Your task to perform on an android device: find which apps use the phone's location Image 0: 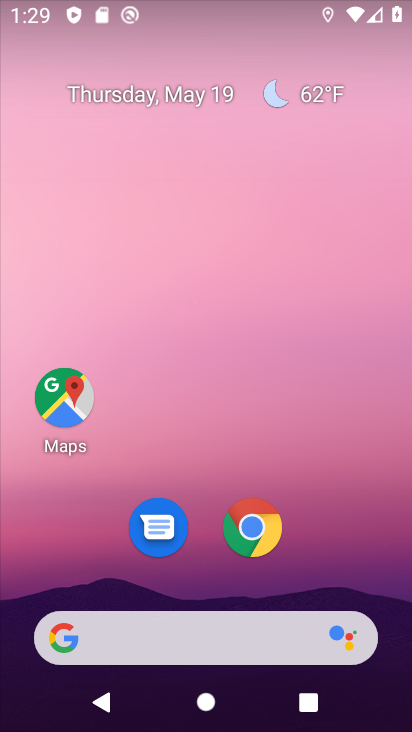
Step 0: drag from (335, 188) to (335, 131)
Your task to perform on an android device: find which apps use the phone's location Image 1: 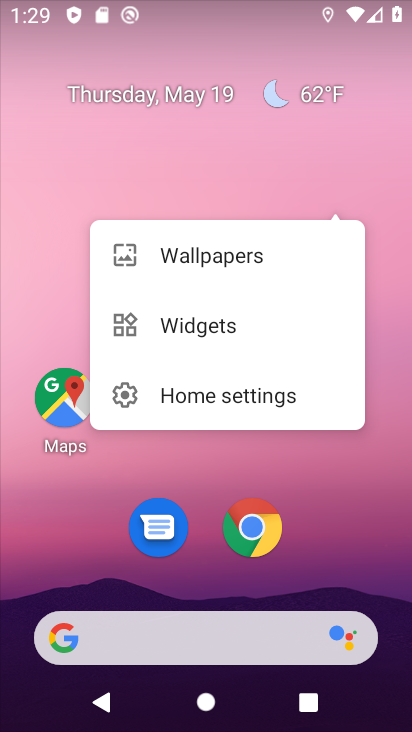
Step 1: drag from (354, 504) to (370, 143)
Your task to perform on an android device: find which apps use the phone's location Image 2: 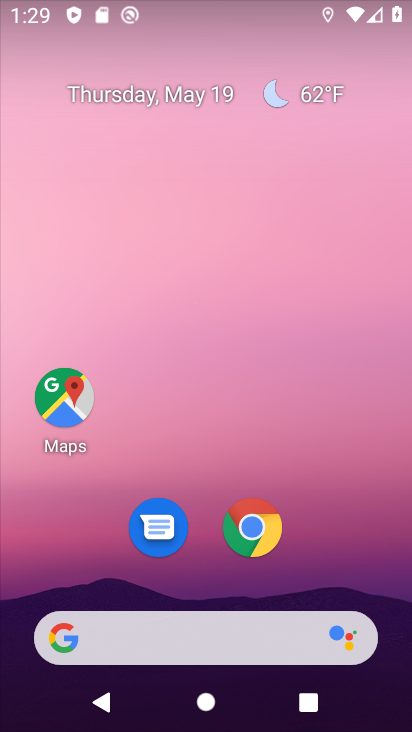
Step 2: drag from (367, 428) to (396, 112)
Your task to perform on an android device: find which apps use the phone's location Image 3: 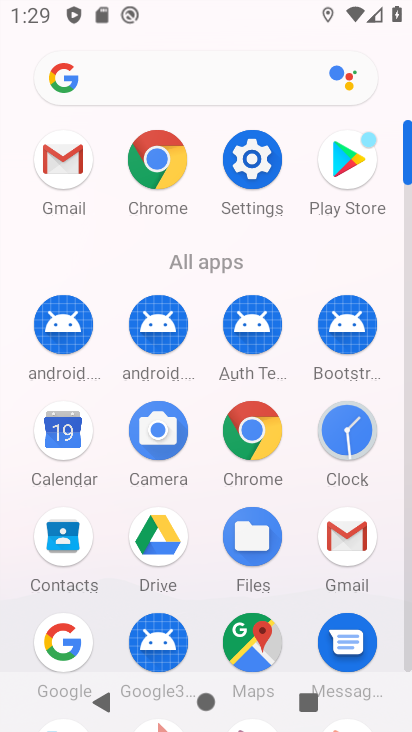
Step 3: drag from (296, 593) to (308, 314)
Your task to perform on an android device: find which apps use the phone's location Image 4: 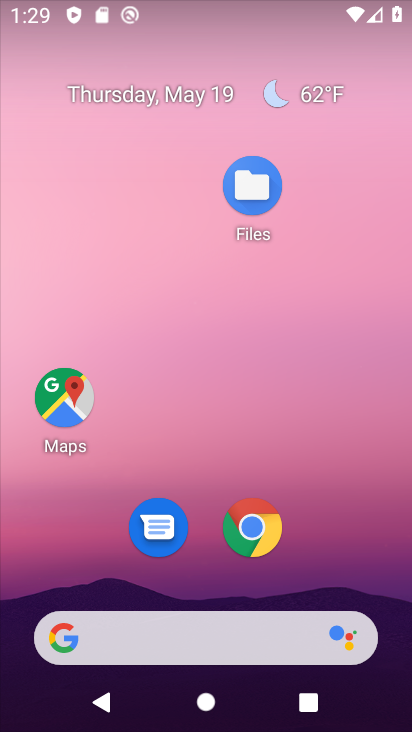
Step 4: drag from (296, 553) to (311, 168)
Your task to perform on an android device: find which apps use the phone's location Image 5: 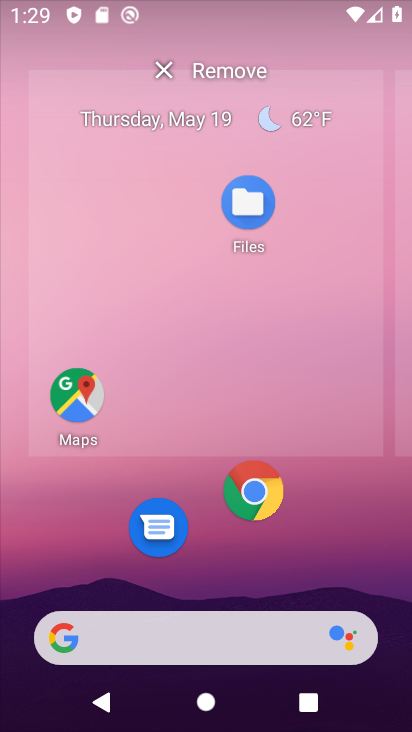
Step 5: drag from (358, 392) to (386, 176)
Your task to perform on an android device: find which apps use the phone's location Image 6: 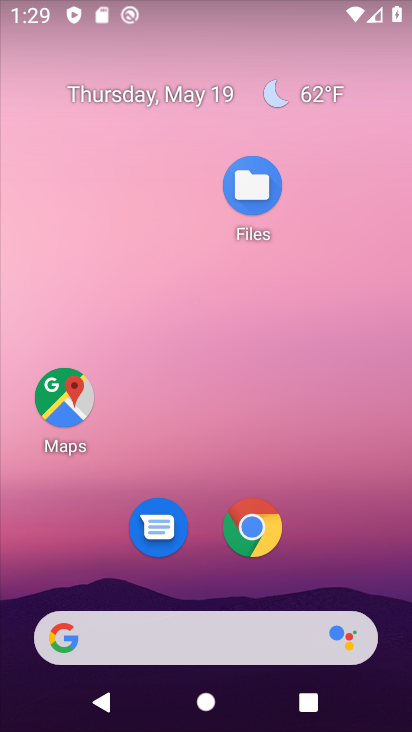
Step 6: drag from (361, 570) to (369, 125)
Your task to perform on an android device: find which apps use the phone's location Image 7: 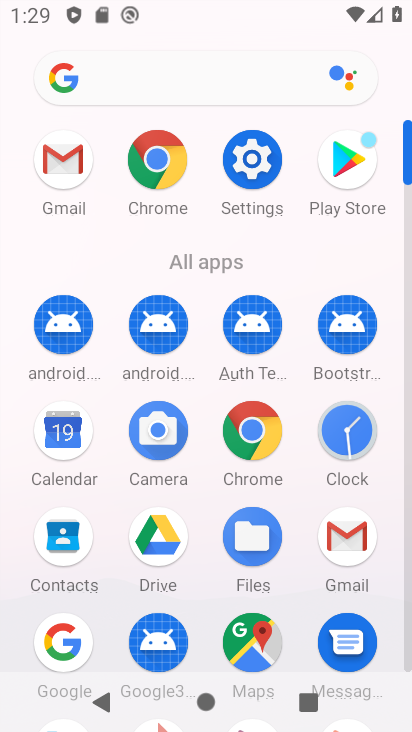
Step 7: drag from (372, 611) to (398, 236)
Your task to perform on an android device: find which apps use the phone's location Image 8: 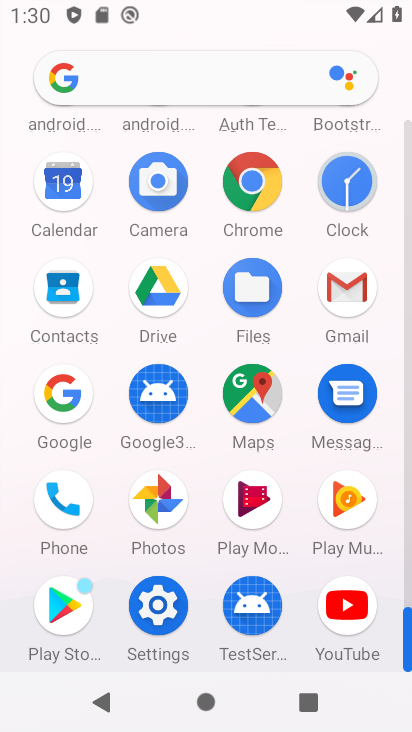
Step 8: click (173, 603)
Your task to perform on an android device: find which apps use the phone's location Image 9: 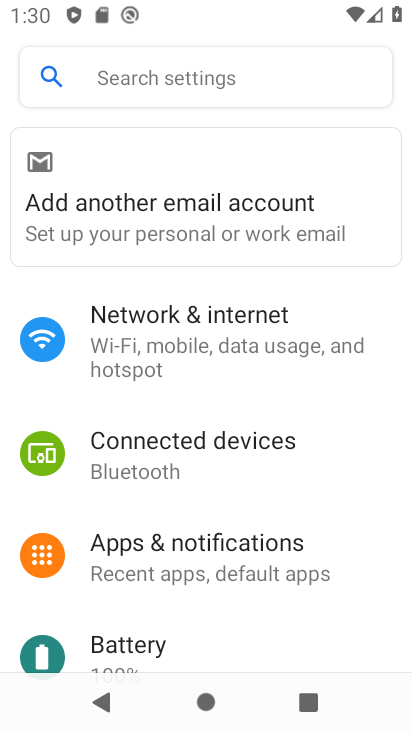
Step 9: click (179, 574)
Your task to perform on an android device: find which apps use the phone's location Image 10: 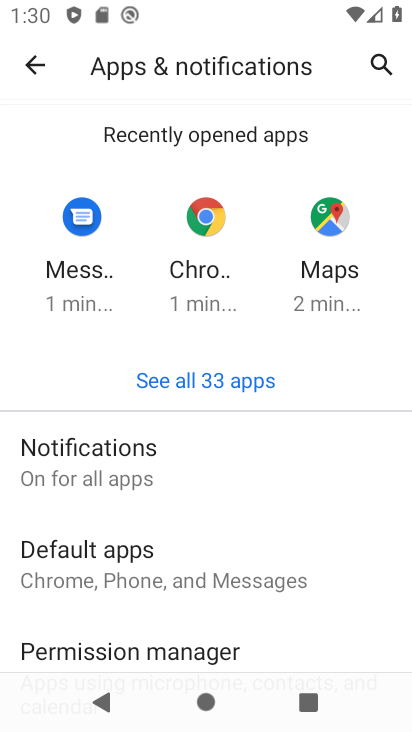
Step 10: click (186, 474)
Your task to perform on an android device: find which apps use the phone's location Image 11: 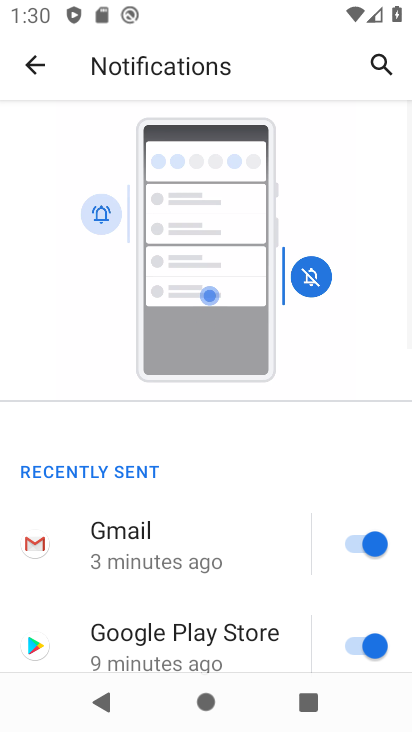
Step 11: task complete